Your task to perform on an android device: see tabs open on other devices in the chrome app Image 0: 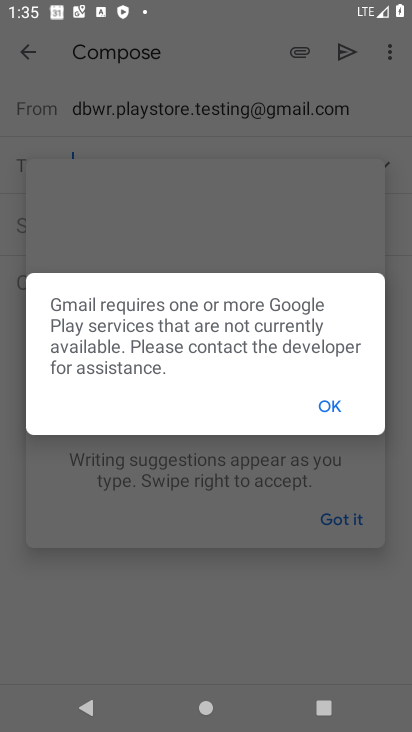
Step 0: press home button
Your task to perform on an android device: see tabs open on other devices in the chrome app Image 1: 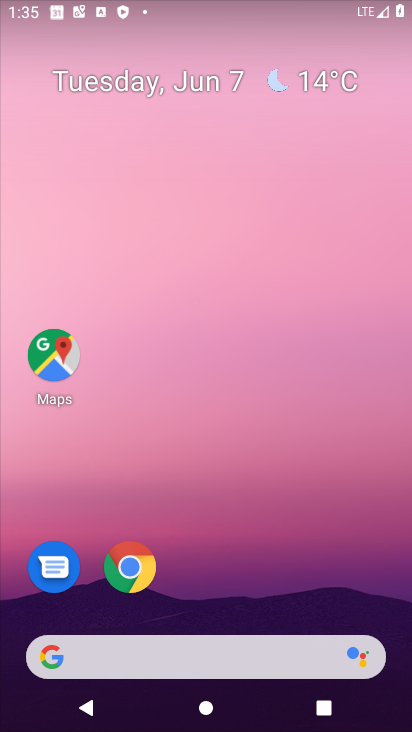
Step 1: drag from (334, 560) to (335, 0)
Your task to perform on an android device: see tabs open on other devices in the chrome app Image 2: 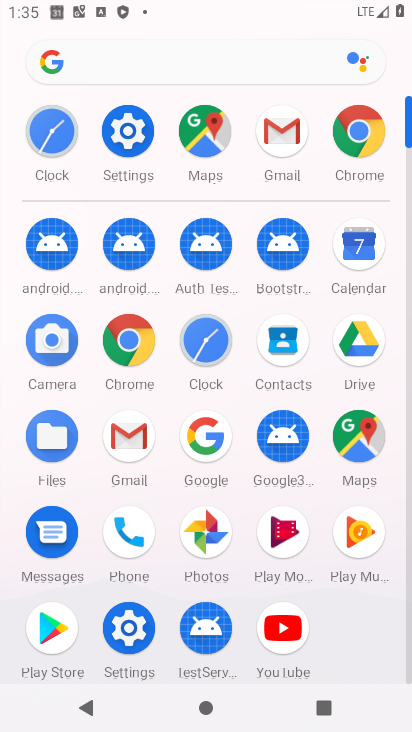
Step 2: click (137, 349)
Your task to perform on an android device: see tabs open on other devices in the chrome app Image 3: 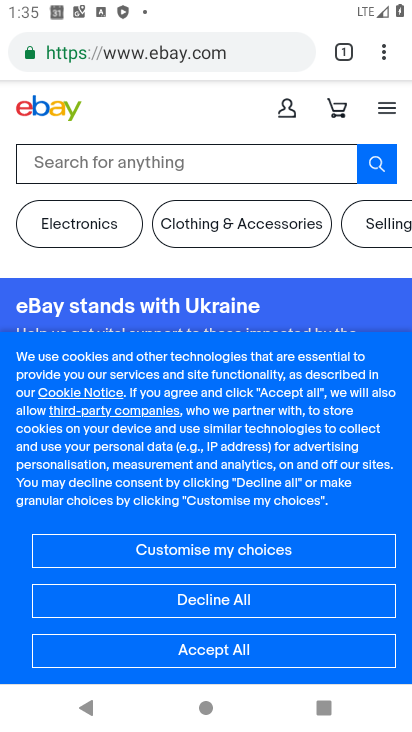
Step 3: task complete